Your task to perform on an android device: Go to accessibility settings Image 0: 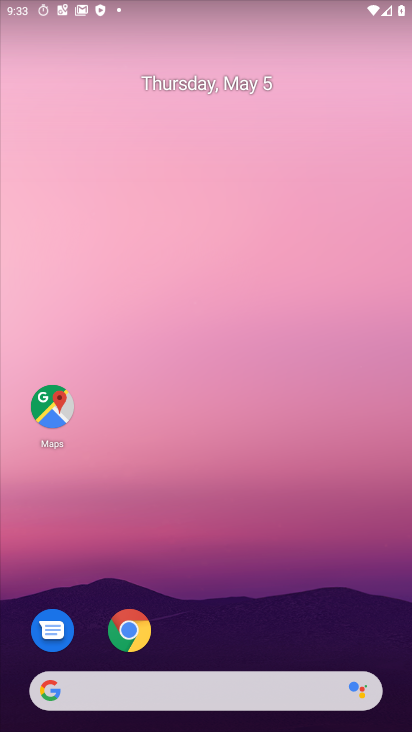
Step 0: drag from (224, 623) to (124, 138)
Your task to perform on an android device: Go to accessibility settings Image 1: 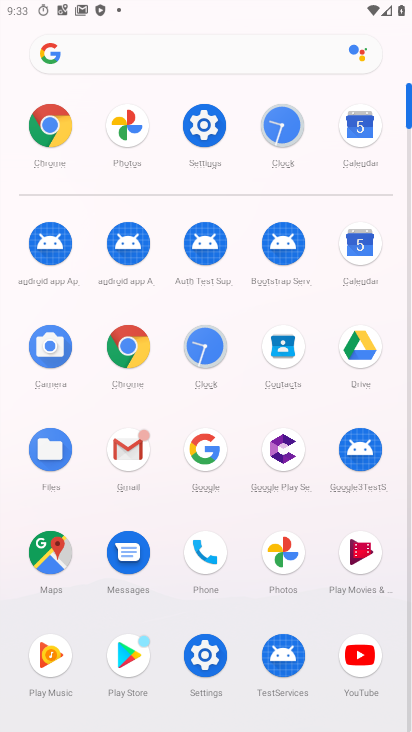
Step 1: click (203, 128)
Your task to perform on an android device: Go to accessibility settings Image 2: 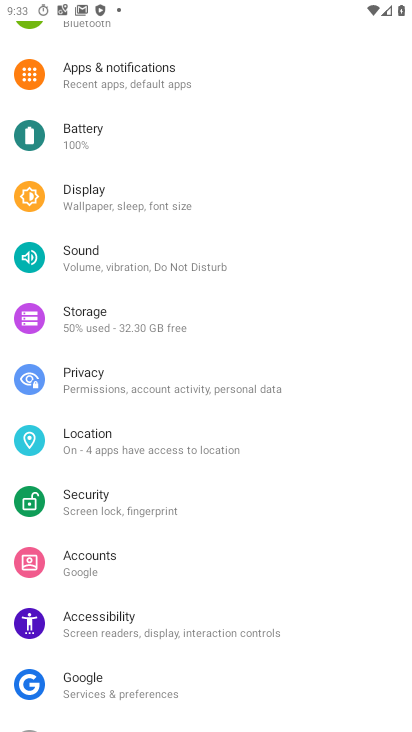
Step 2: click (22, 630)
Your task to perform on an android device: Go to accessibility settings Image 3: 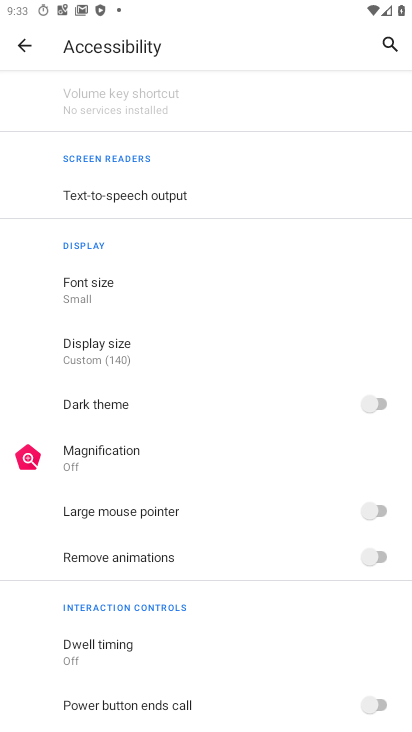
Step 3: task complete